Your task to perform on an android device: set an alarm Image 0: 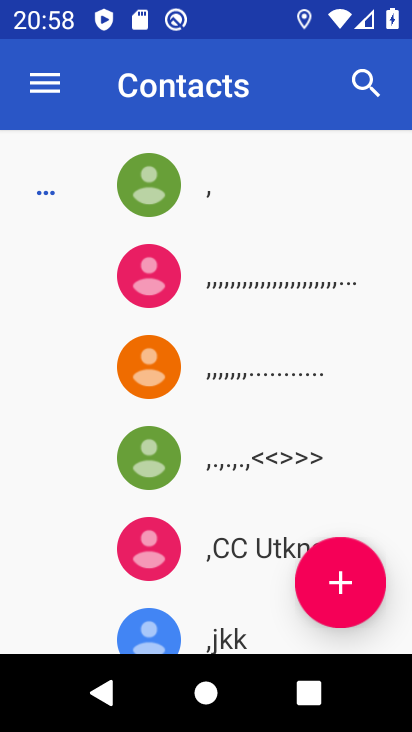
Step 0: press home button
Your task to perform on an android device: set an alarm Image 1: 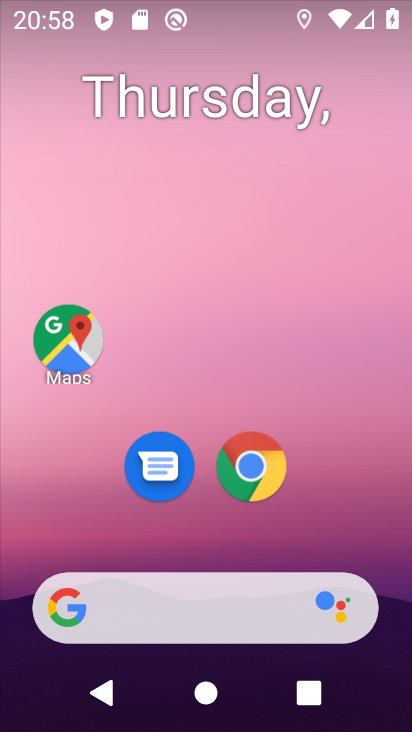
Step 1: drag from (214, 542) to (205, 34)
Your task to perform on an android device: set an alarm Image 2: 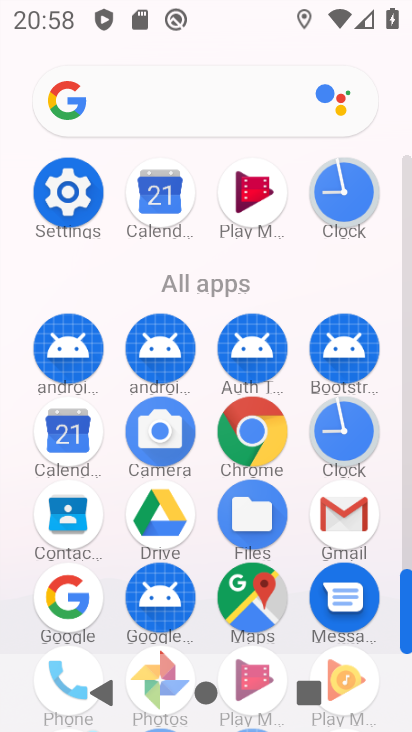
Step 2: click (347, 458)
Your task to perform on an android device: set an alarm Image 3: 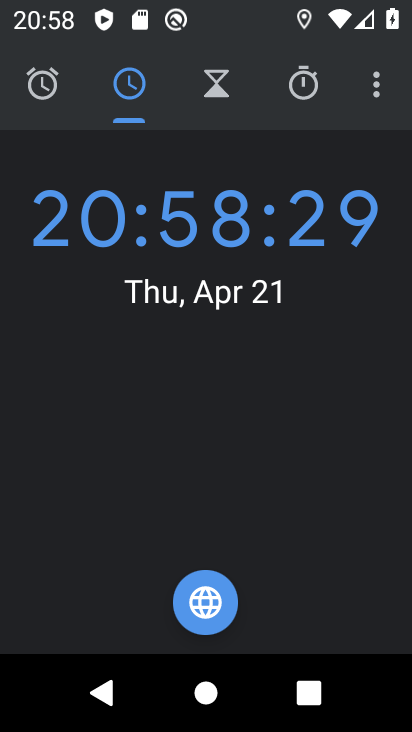
Step 3: click (31, 87)
Your task to perform on an android device: set an alarm Image 4: 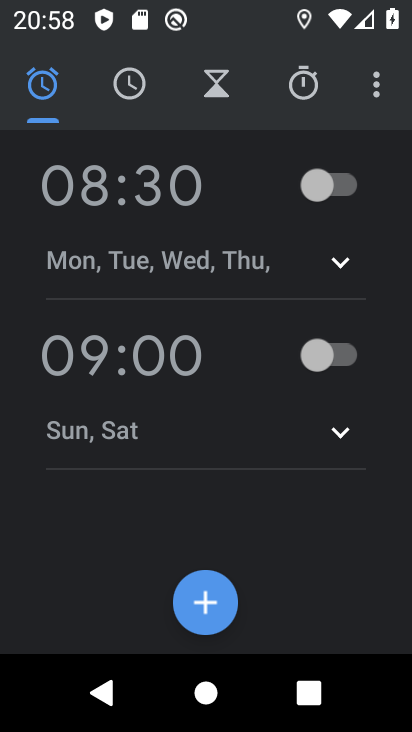
Step 4: click (192, 594)
Your task to perform on an android device: set an alarm Image 5: 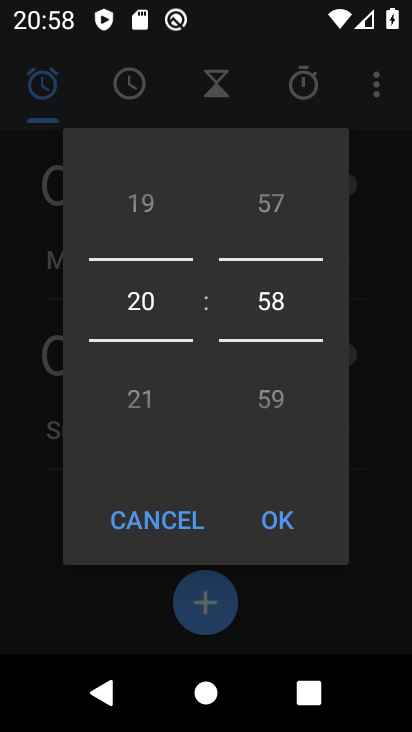
Step 5: click (286, 529)
Your task to perform on an android device: set an alarm Image 6: 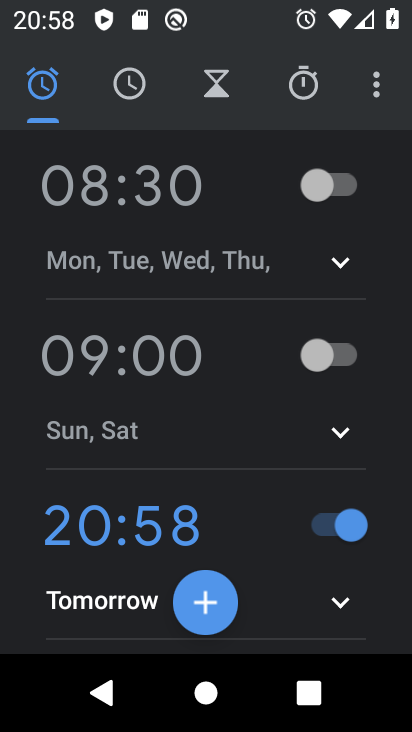
Step 6: task complete